Your task to perform on an android device: Open Google Chrome and open the bookmarks view Image 0: 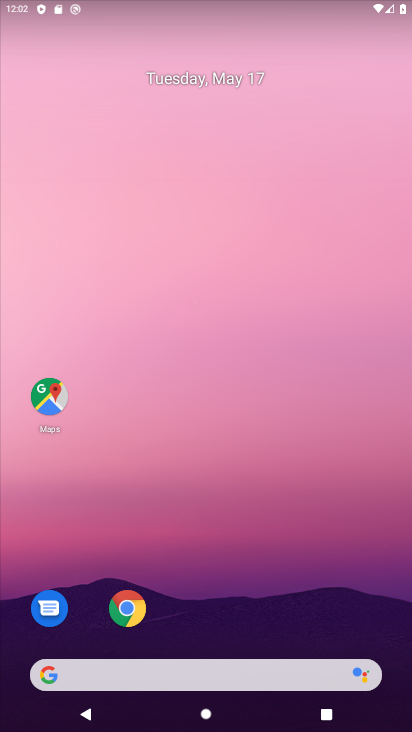
Step 0: drag from (277, 586) to (325, 192)
Your task to perform on an android device: Open Google Chrome and open the bookmarks view Image 1: 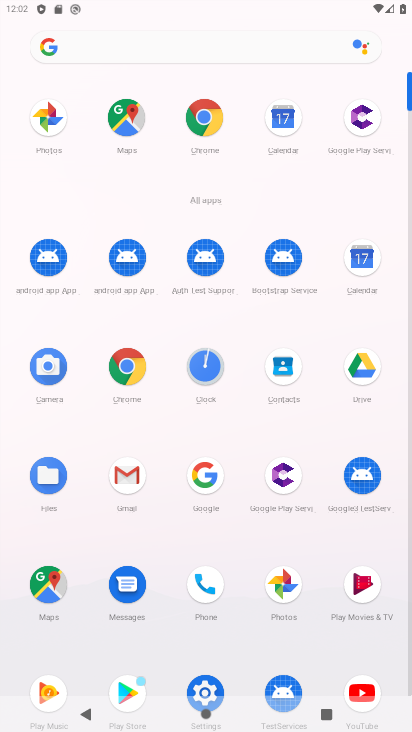
Step 1: click (209, 141)
Your task to perform on an android device: Open Google Chrome and open the bookmarks view Image 2: 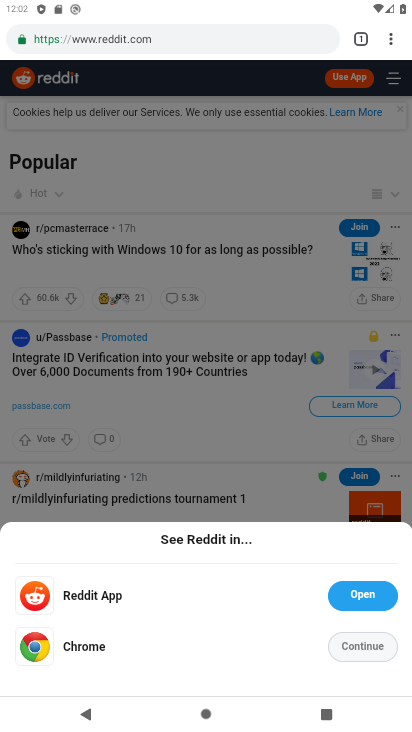
Step 2: click (388, 41)
Your task to perform on an android device: Open Google Chrome and open the bookmarks view Image 3: 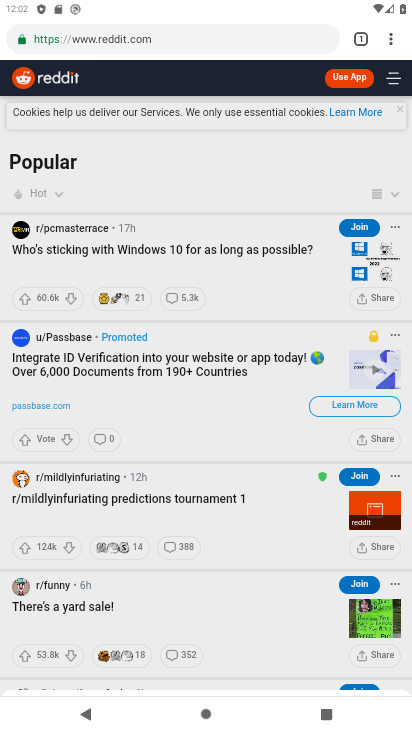
Step 3: click (392, 40)
Your task to perform on an android device: Open Google Chrome and open the bookmarks view Image 4: 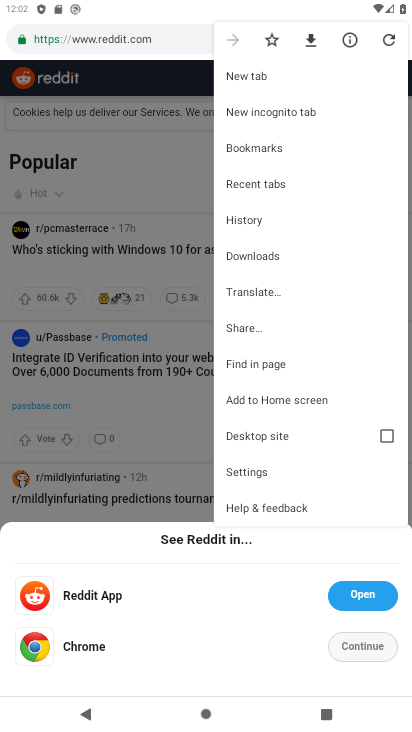
Step 4: click (273, 149)
Your task to perform on an android device: Open Google Chrome and open the bookmarks view Image 5: 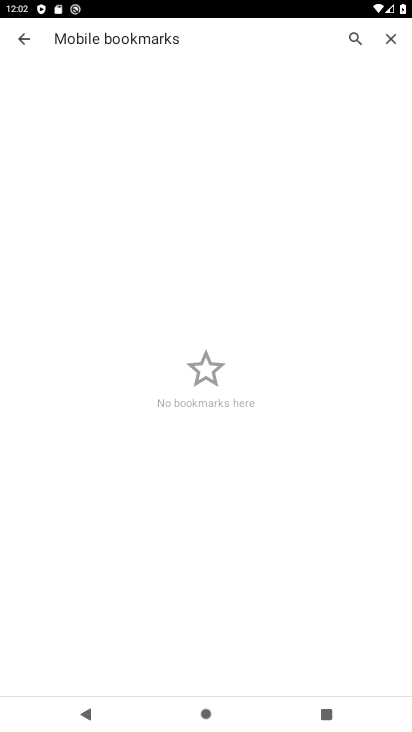
Step 5: task complete